Your task to perform on an android device: open a new tab in the chrome app Image 0: 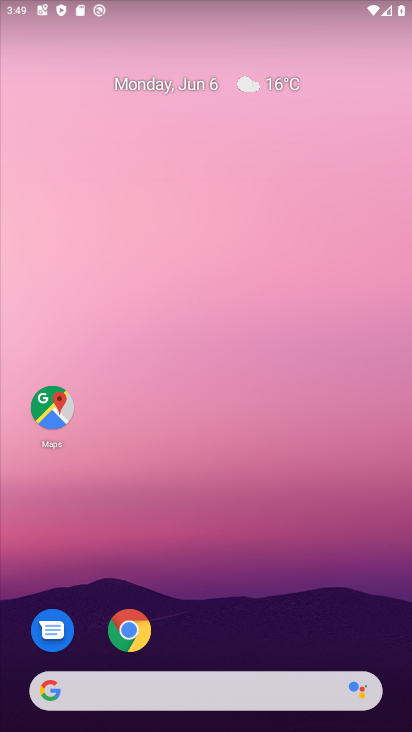
Step 0: click (116, 625)
Your task to perform on an android device: open a new tab in the chrome app Image 1: 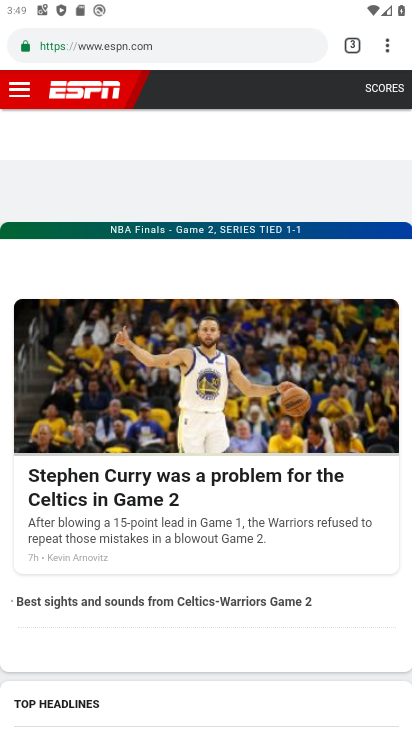
Step 1: click (352, 48)
Your task to perform on an android device: open a new tab in the chrome app Image 2: 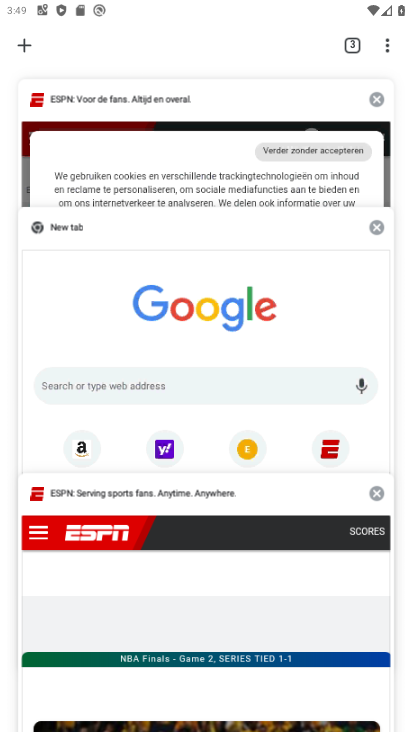
Step 2: click (63, 279)
Your task to perform on an android device: open a new tab in the chrome app Image 3: 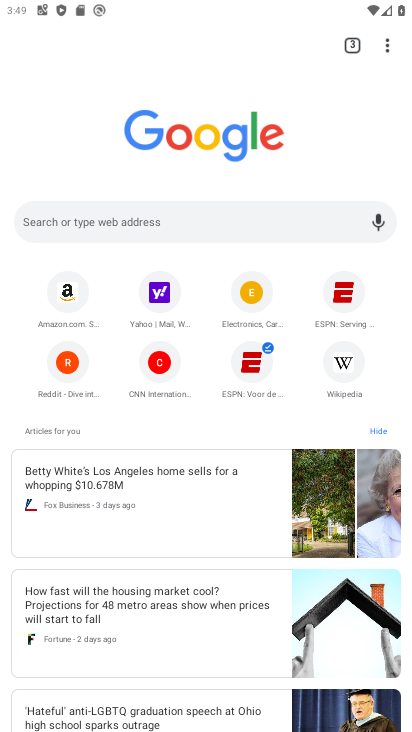
Step 3: task complete